Your task to perform on an android device: open a new tab in the chrome app Image 0: 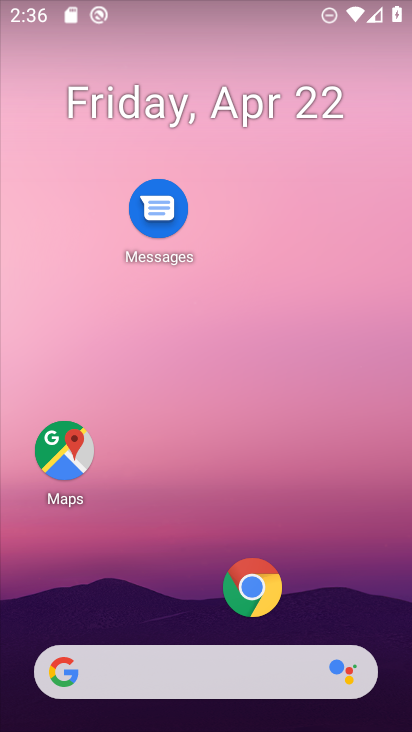
Step 0: click (262, 589)
Your task to perform on an android device: open a new tab in the chrome app Image 1: 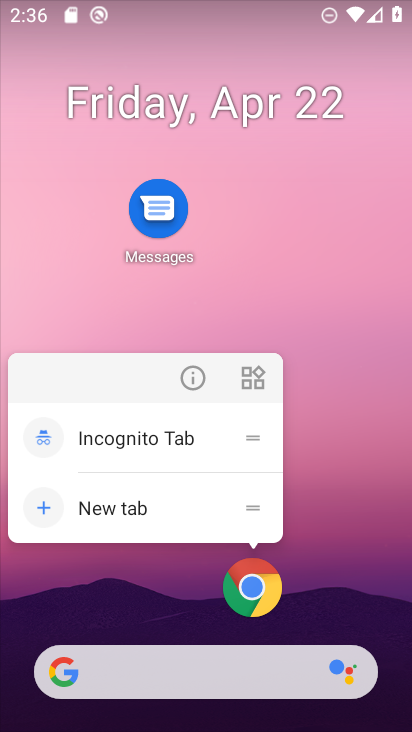
Step 1: click (260, 601)
Your task to perform on an android device: open a new tab in the chrome app Image 2: 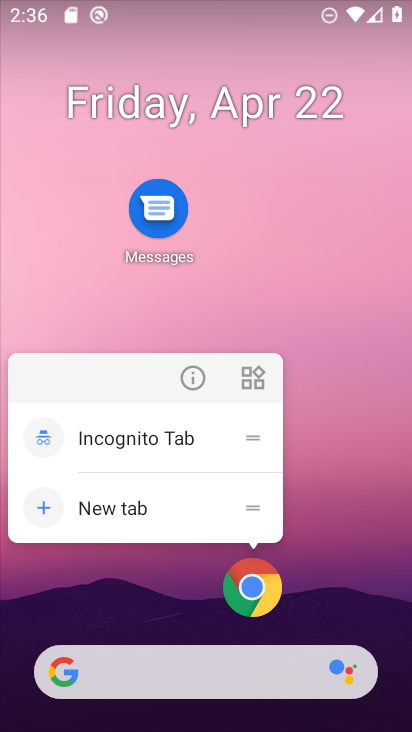
Step 2: click (262, 584)
Your task to perform on an android device: open a new tab in the chrome app Image 3: 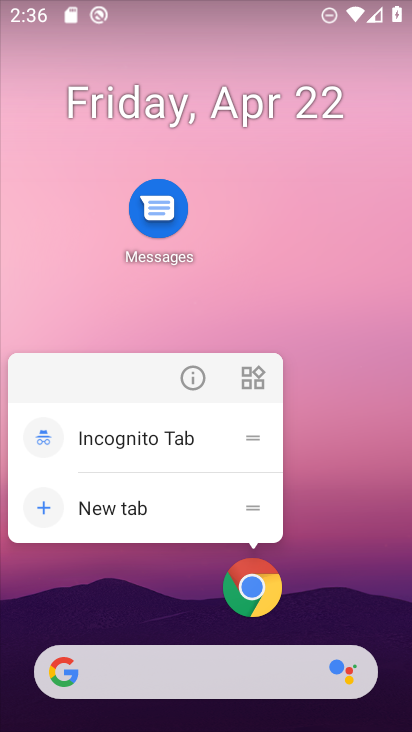
Step 3: click (262, 584)
Your task to perform on an android device: open a new tab in the chrome app Image 4: 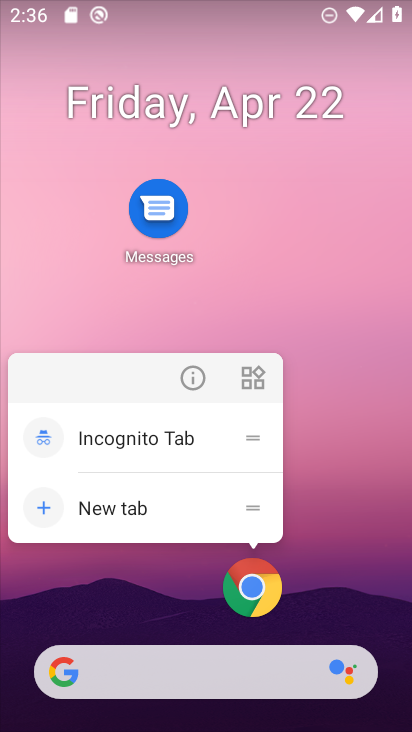
Step 4: click (262, 584)
Your task to perform on an android device: open a new tab in the chrome app Image 5: 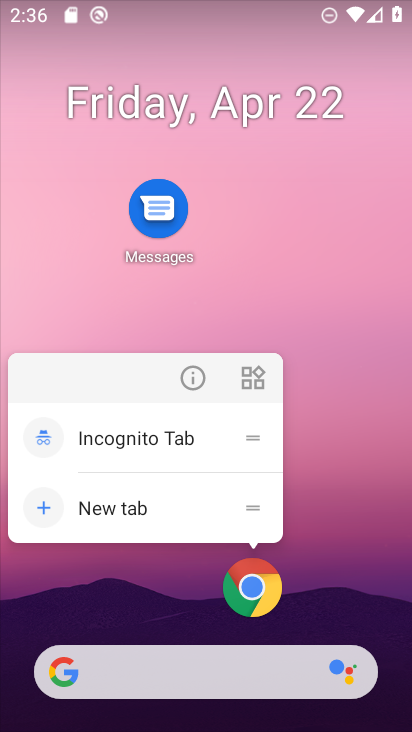
Step 5: click (262, 584)
Your task to perform on an android device: open a new tab in the chrome app Image 6: 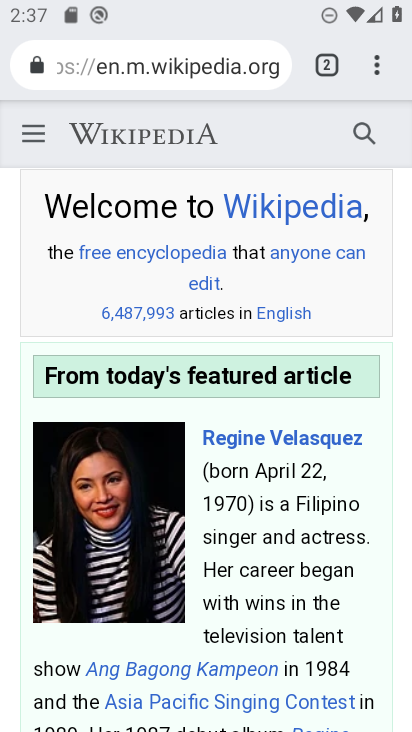
Step 6: click (336, 64)
Your task to perform on an android device: open a new tab in the chrome app Image 7: 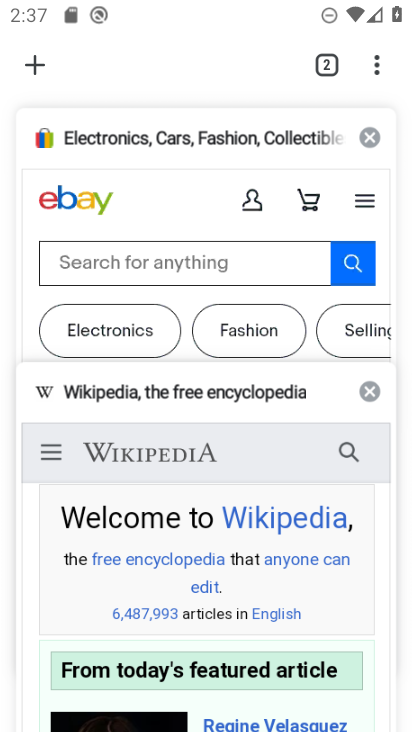
Step 7: click (33, 60)
Your task to perform on an android device: open a new tab in the chrome app Image 8: 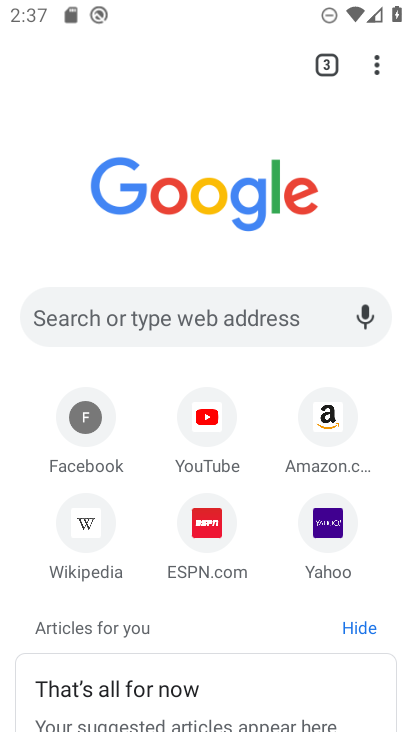
Step 8: task complete